Your task to perform on an android device: open wifi settings Image 0: 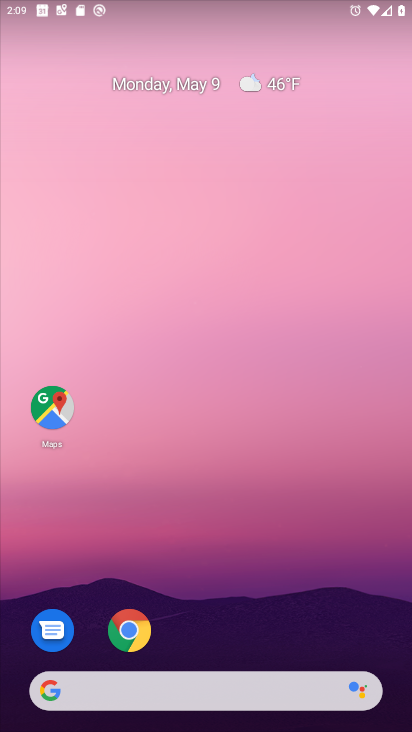
Step 0: drag from (282, 715) to (228, 376)
Your task to perform on an android device: open wifi settings Image 1: 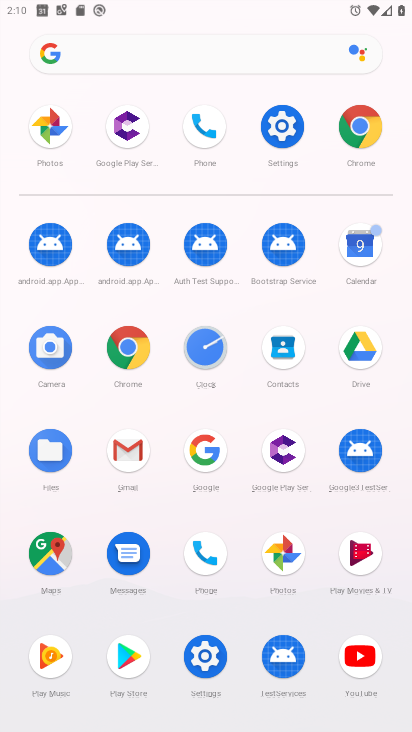
Step 1: click (257, 131)
Your task to perform on an android device: open wifi settings Image 2: 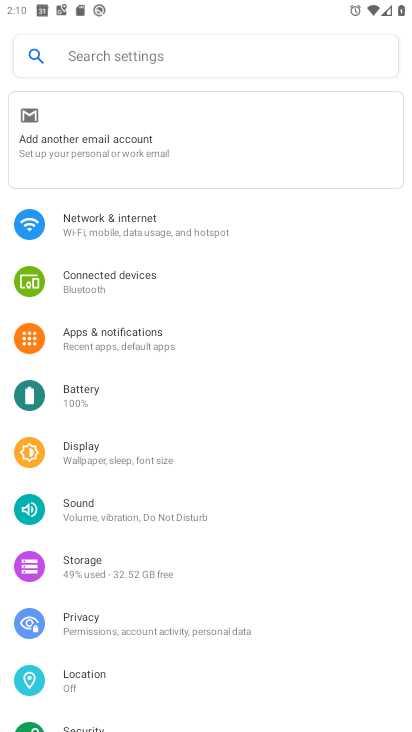
Step 2: click (114, 211)
Your task to perform on an android device: open wifi settings Image 3: 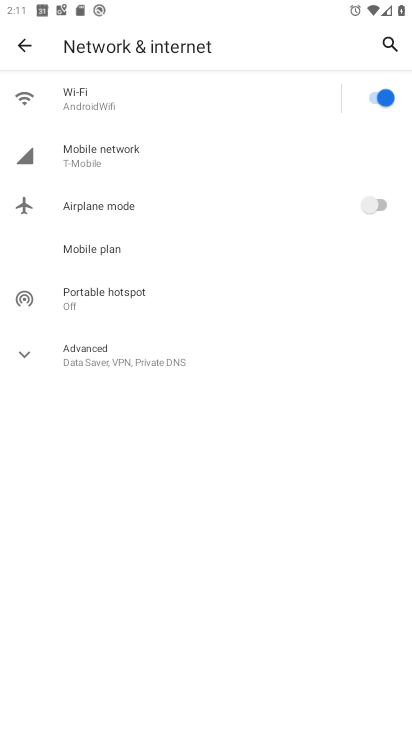
Step 3: click (114, 93)
Your task to perform on an android device: open wifi settings Image 4: 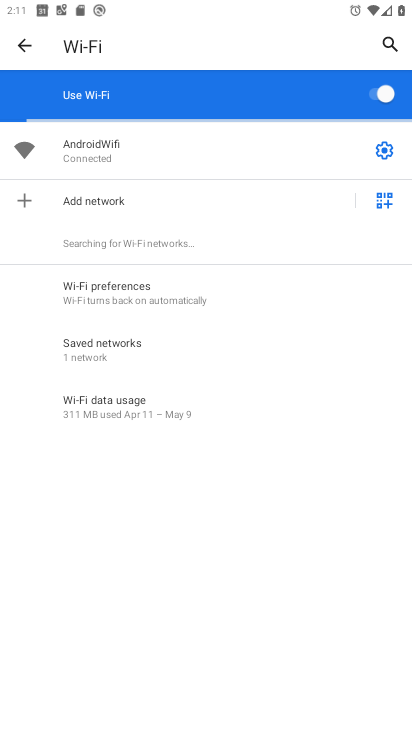
Step 4: task complete